Your task to perform on an android device: Open the Play Movies app and select the watchlist tab. Image 0: 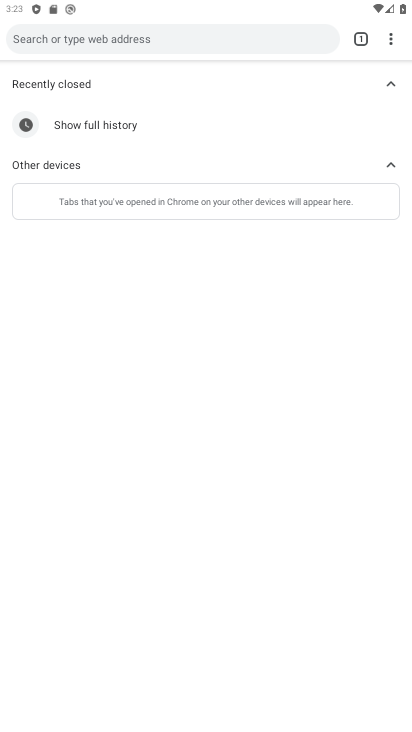
Step 0: press home button
Your task to perform on an android device: Open the Play Movies app and select the watchlist tab. Image 1: 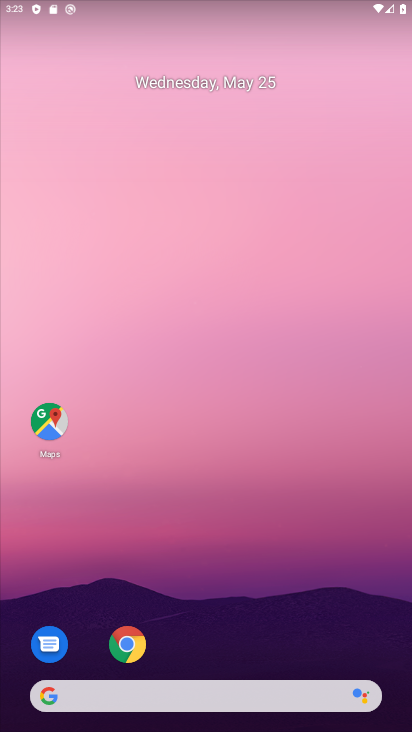
Step 1: drag from (278, 674) to (282, 1)
Your task to perform on an android device: Open the Play Movies app and select the watchlist tab. Image 2: 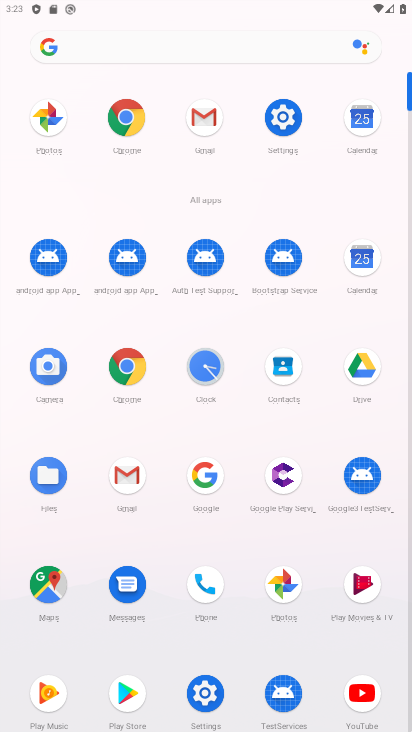
Step 2: click (361, 577)
Your task to perform on an android device: Open the Play Movies app and select the watchlist tab. Image 3: 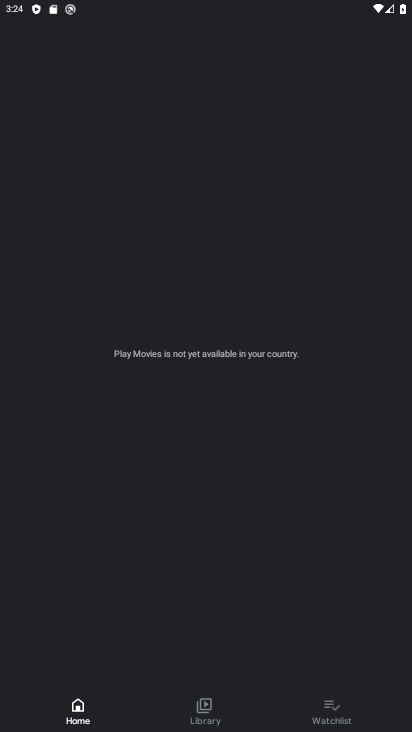
Step 3: click (327, 715)
Your task to perform on an android device: Open the Play Movies app and select the watchlist tab. Image 4: 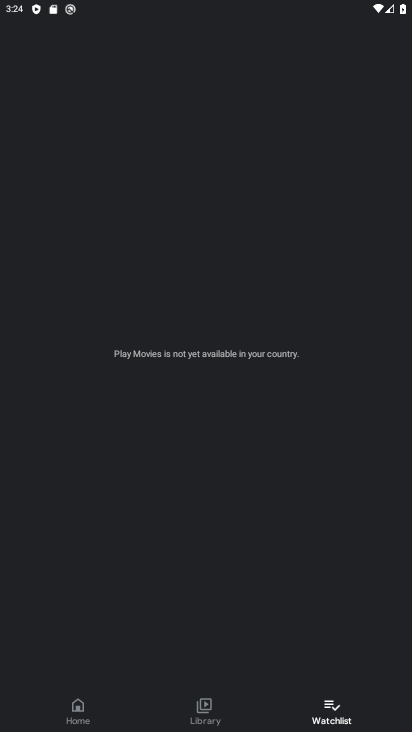
Step 4: task complete